Your task to perform on an android device: open app "TextNow: Call + Text Unlimited" (install if not already installed), go to login, and select forgot password Image 0: 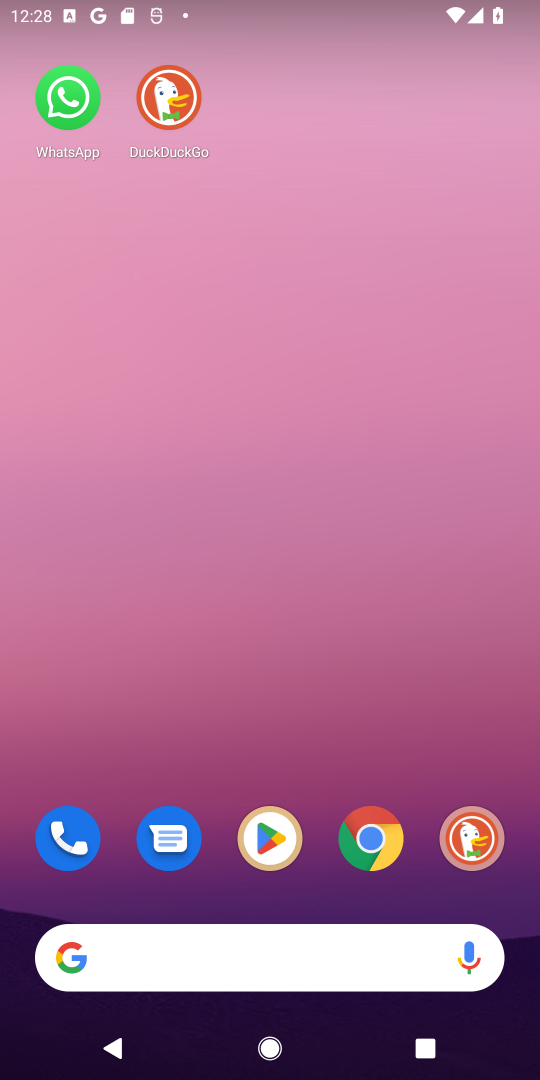
Step 0: click (263, 858)
Your task to perform on an android device: open app "TextNow: Call + Text Unlimited" (install if not already installed), go to login, and select forgot password Image 1: 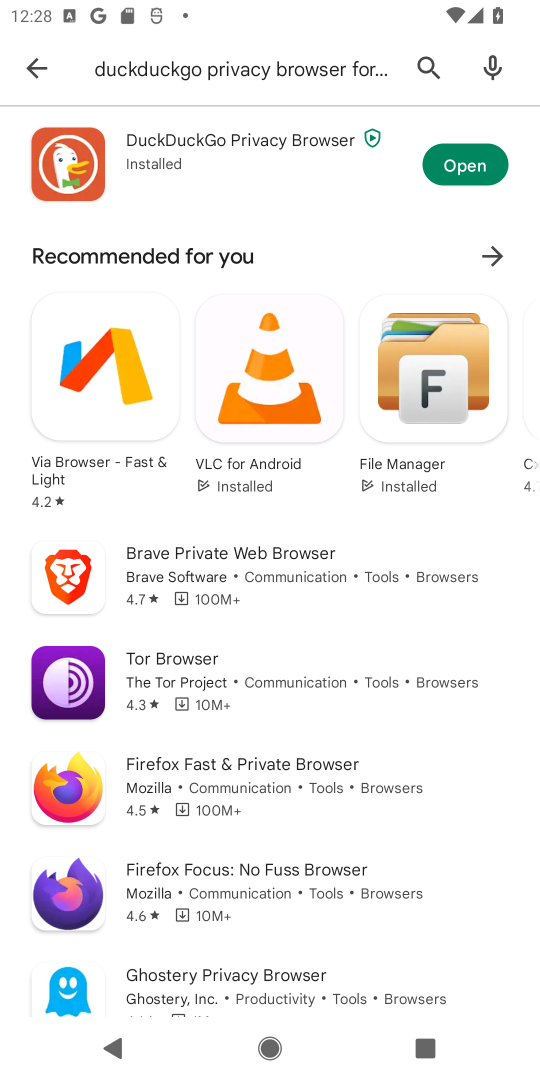
Step 1: click (416, 72)
Your task to perform on an android device: open app "TextNow: Call + Text Unlimited" (install if not already installed), go to login, and select forgot password Image 2: 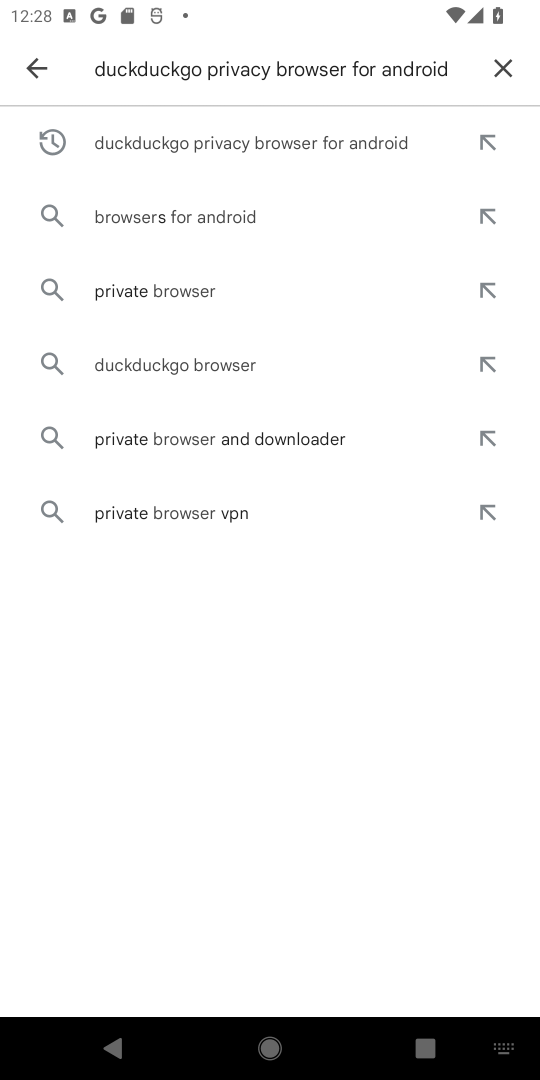
Step 2: click (492, 67)
Your task to perform on an android device: open app "TextNow: Call + Text Unlimited" (install if not already installed), go to login, and select forgot password Image 3: 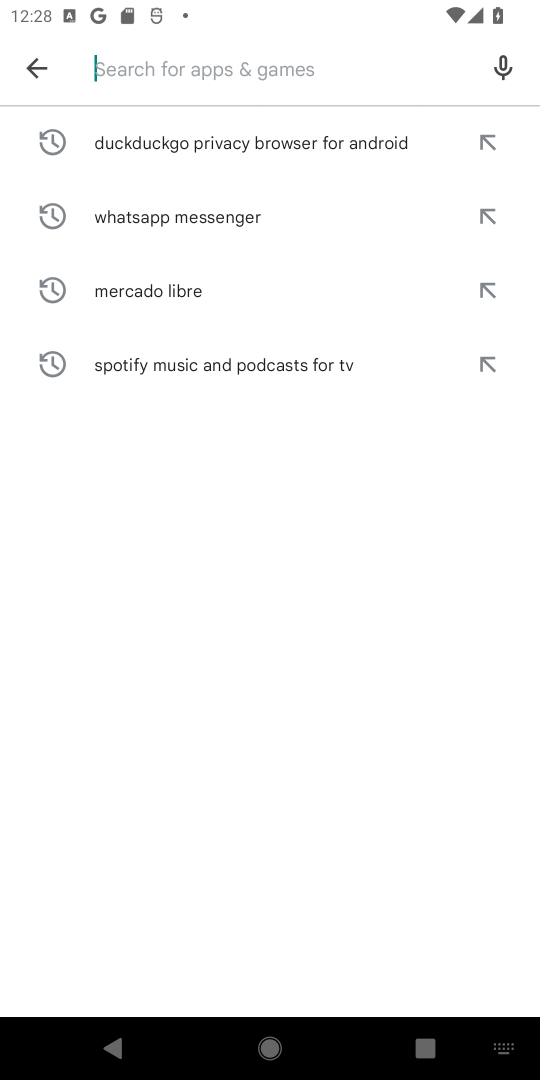
Step 3: type "TextNow: Call + Text Unlimited"
Your task to perform on an android device: open app "TextNow: Call + Text Unlimited" (install if not already installed), go to login, and select forgot password Image 4: 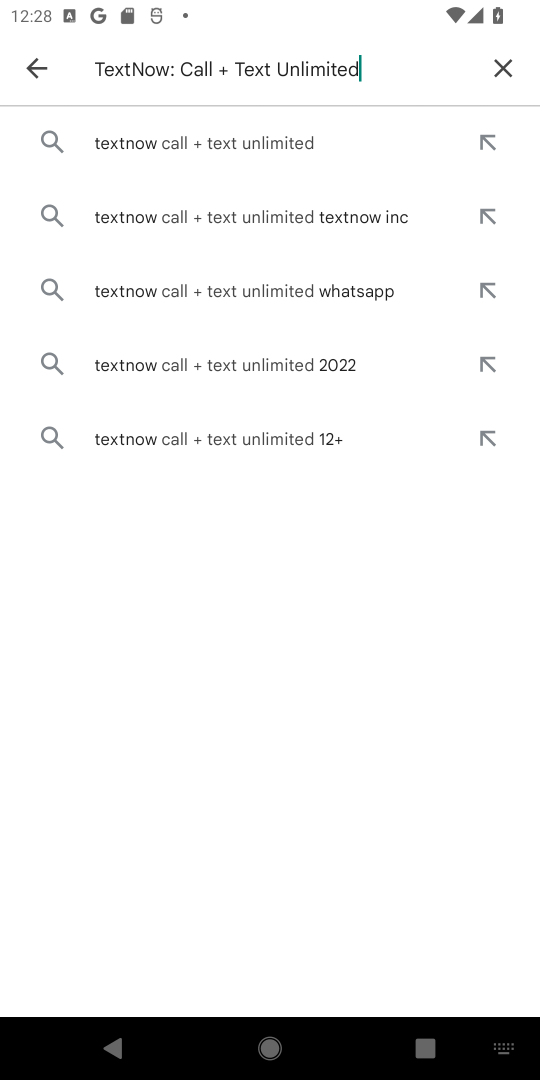
Step 4: click (174, 134)
Your task to perform on an android device: open app "TextNow: Call + Text Unlimited" (install if not already installed), go to login, and select forgot password Image 5: 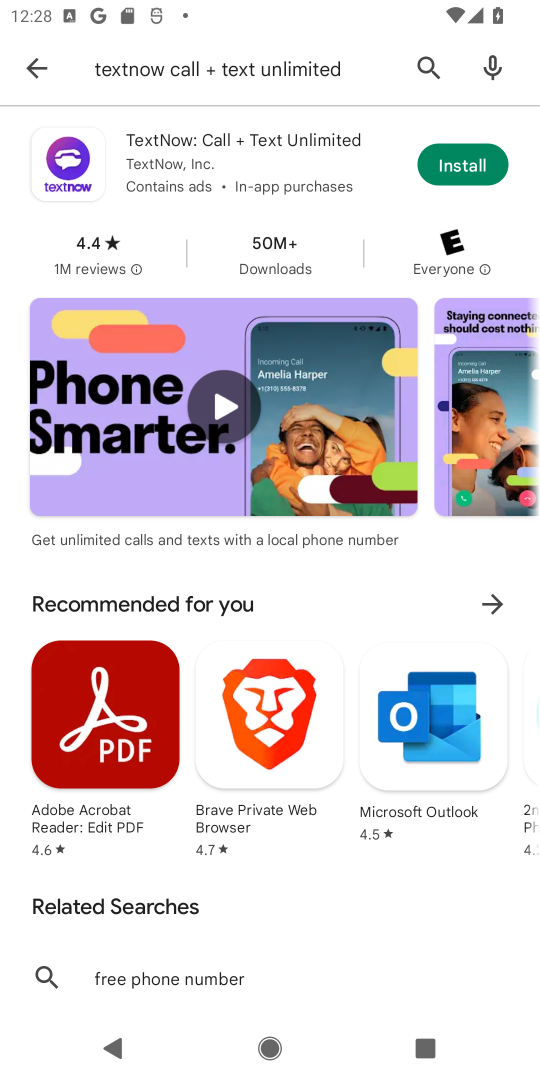
Step 5: click (437, 162)
Your task to perform on an android device: open app "TextNow: Call + Text Unlimited" (install if not already installed), go to login, and select forgot password Image 6: 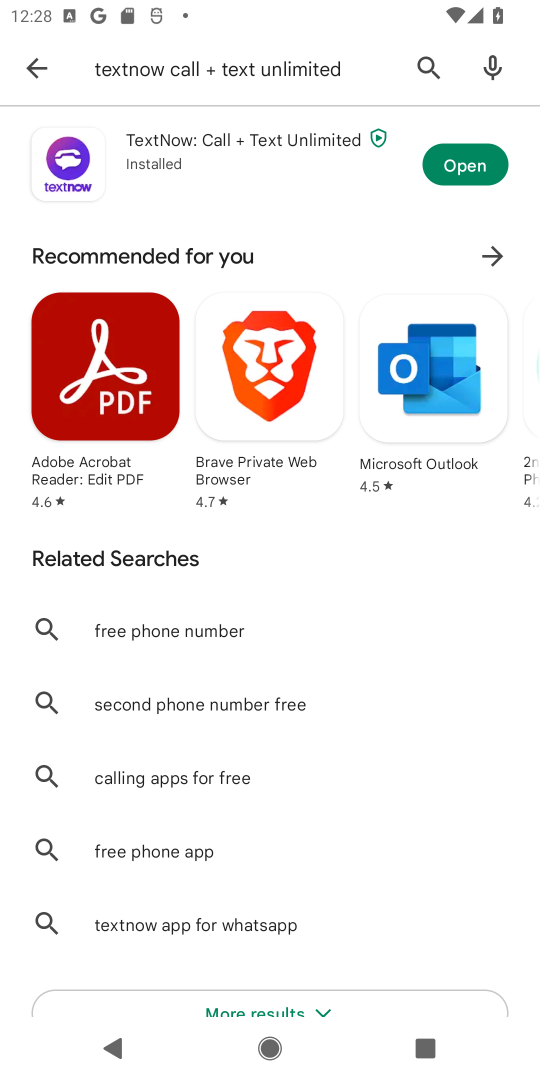
Step 6: click (467, 174)
Your task to perform on an android device: open app "TextNow: Call + Text Unlimited" (install if not already installed), go to login, and select forgot password Image 7: 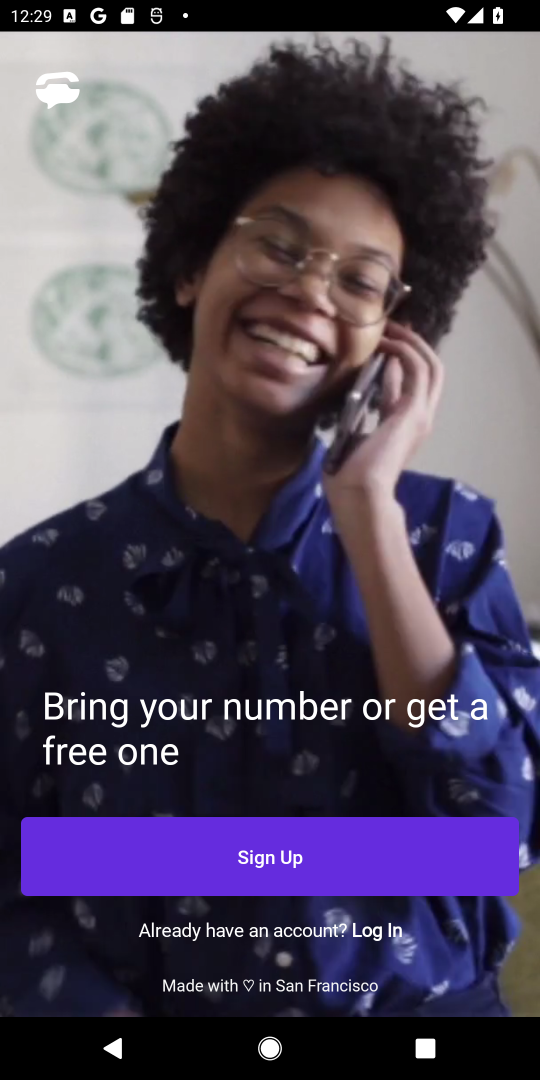
Step 7: task complete